Your task to perform on an android device: Clear the shopping cart on amazon.com. Image 0: 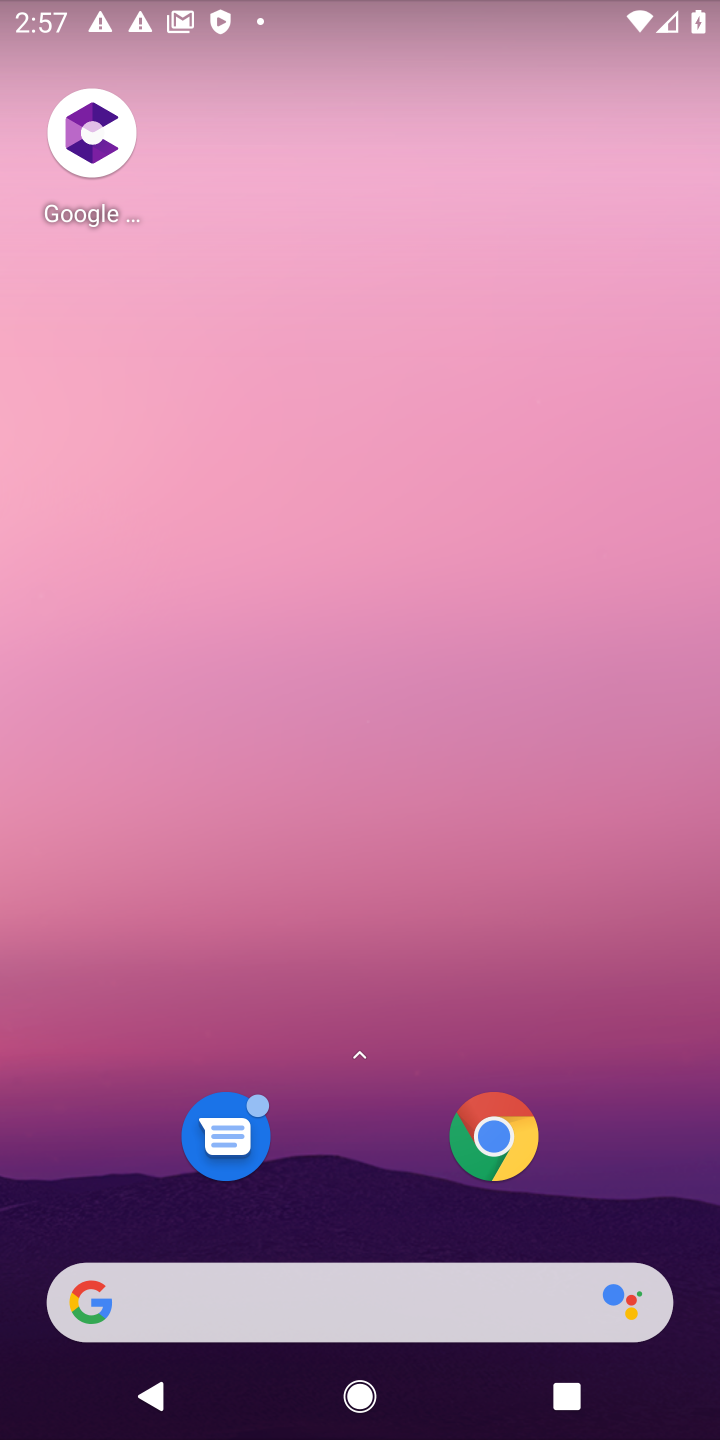
Step 0: drag from (365, 1164) to (313, 195)
Your task to perform on an android device: Clear the shopping cart on amazon.com. Image 1: 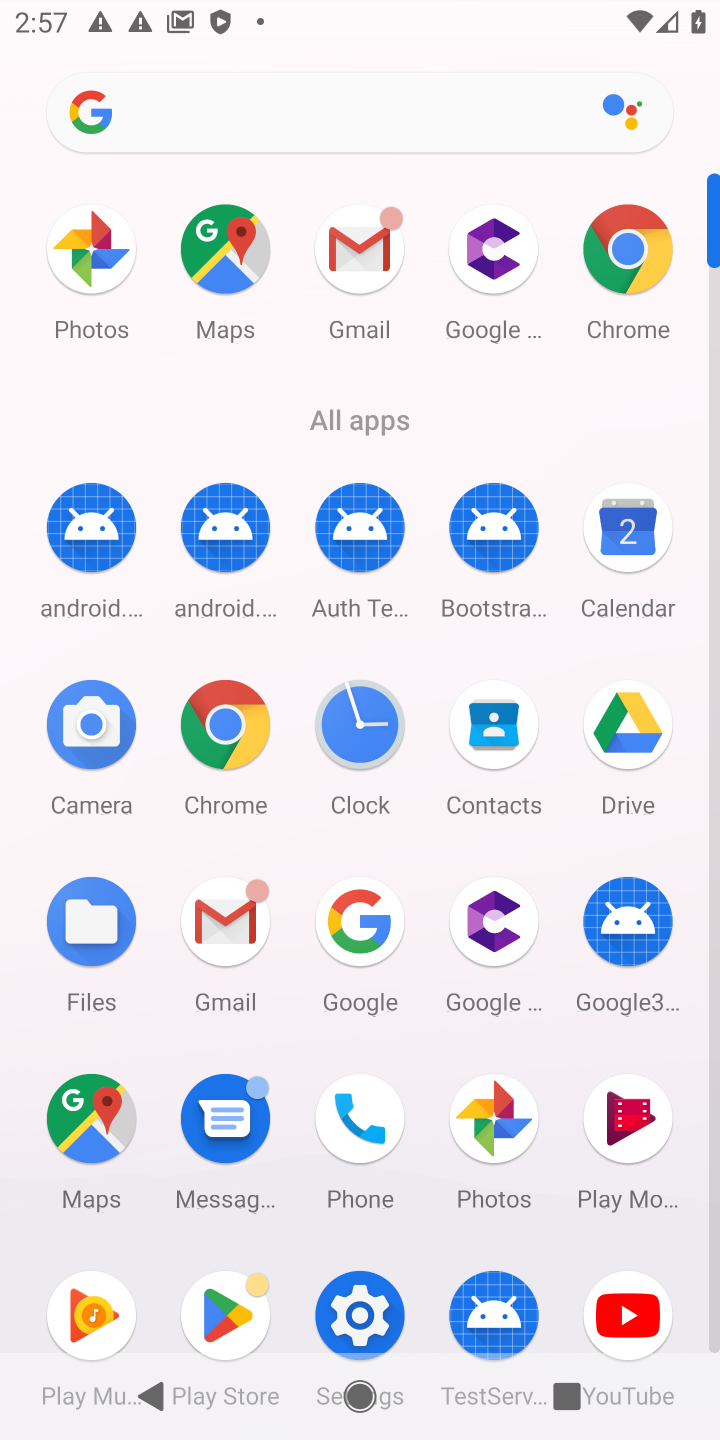
Step 1: click (225, 730)
Your task to perform on an android device: Clear the shopping cart on amazon.com. Image 2: 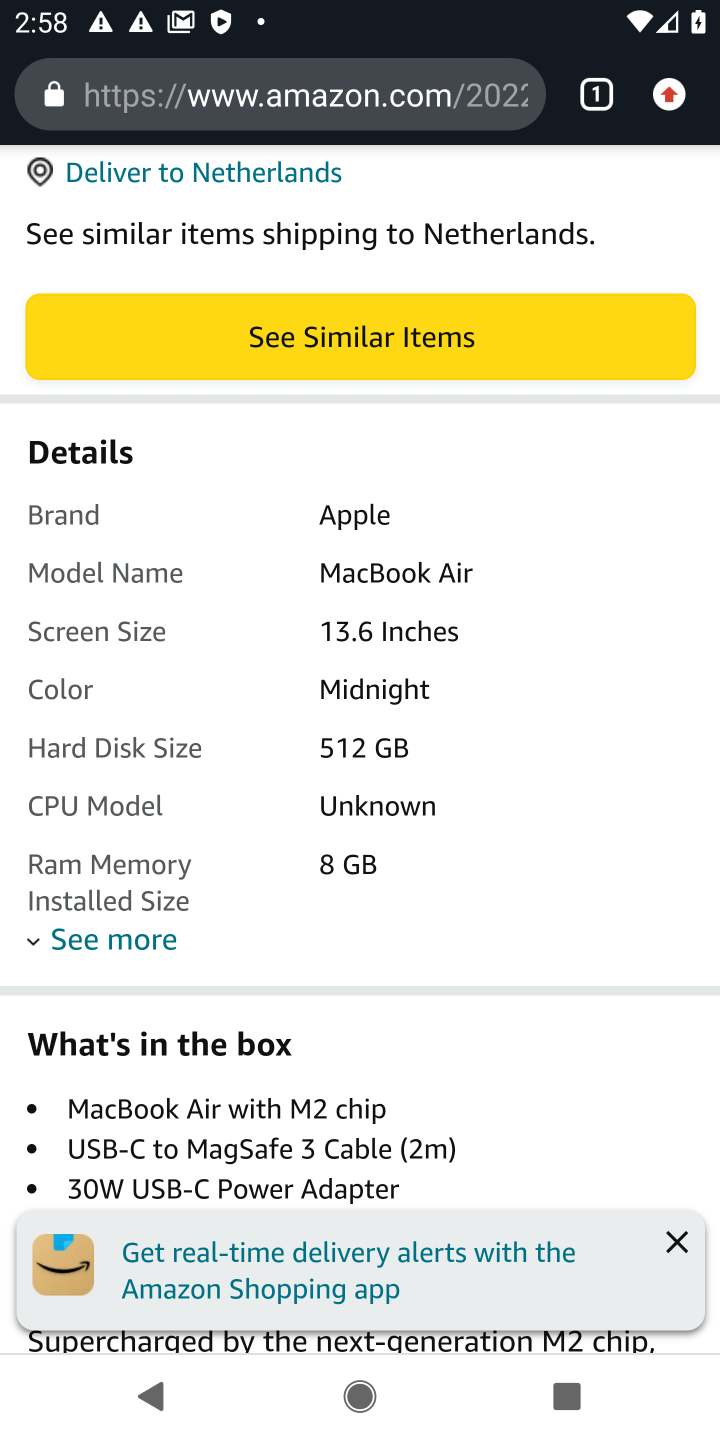
Step 2: click (358, 106)
Your task to perform on an android device: Clear the shopping cart on amazon.com. Image 3: 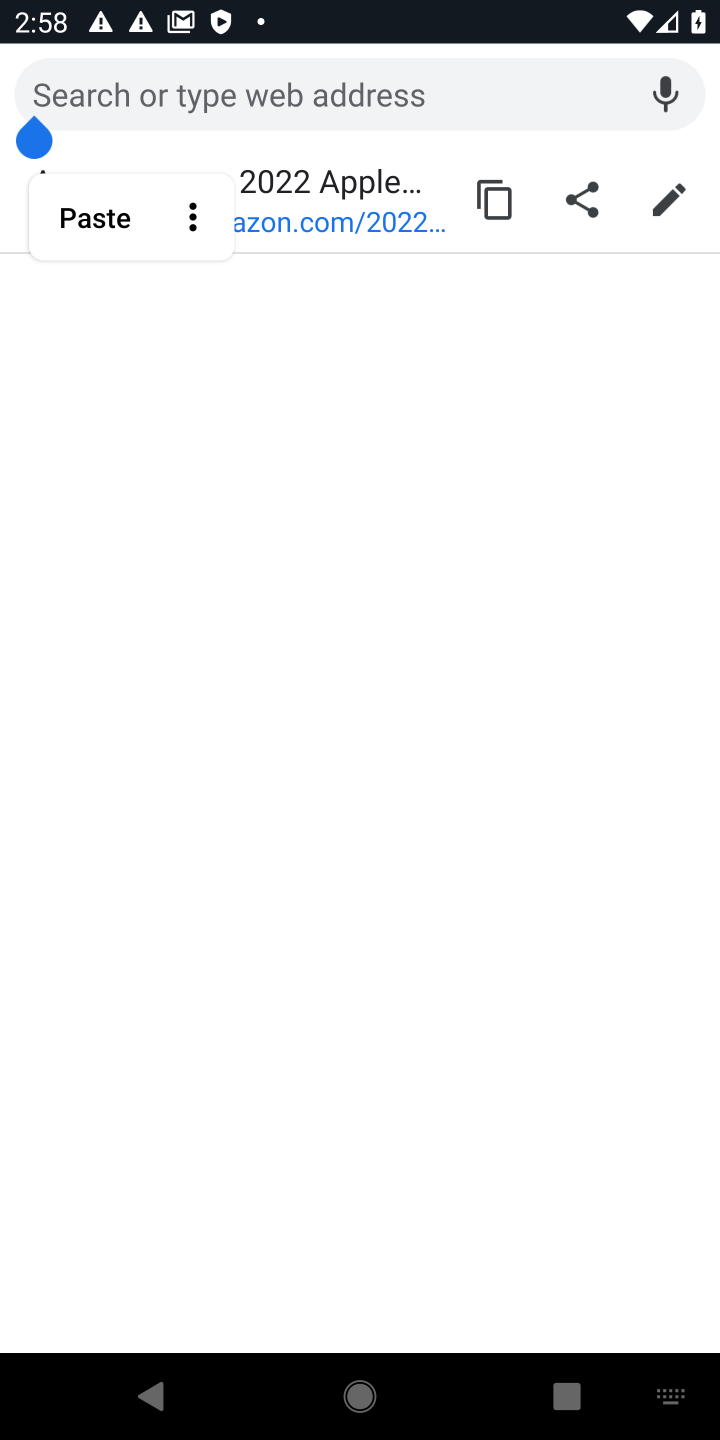
Step 3: type "amazon.com"
Your task to perform on an android device: Clear the shopping cart on amazon.com. Image 4: 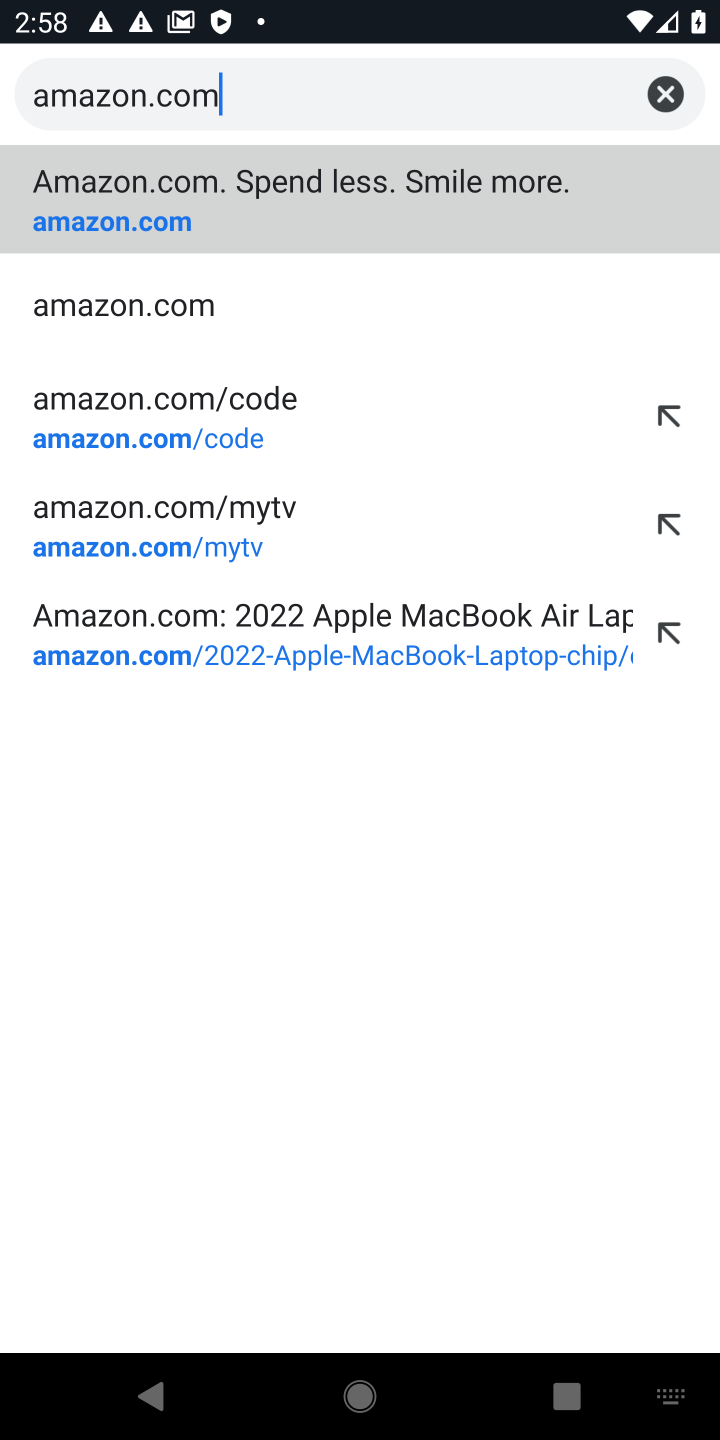
Step 4: press enter
Your task to perform on an android device: Clear the shopping cart on amazon.com. Image 5: 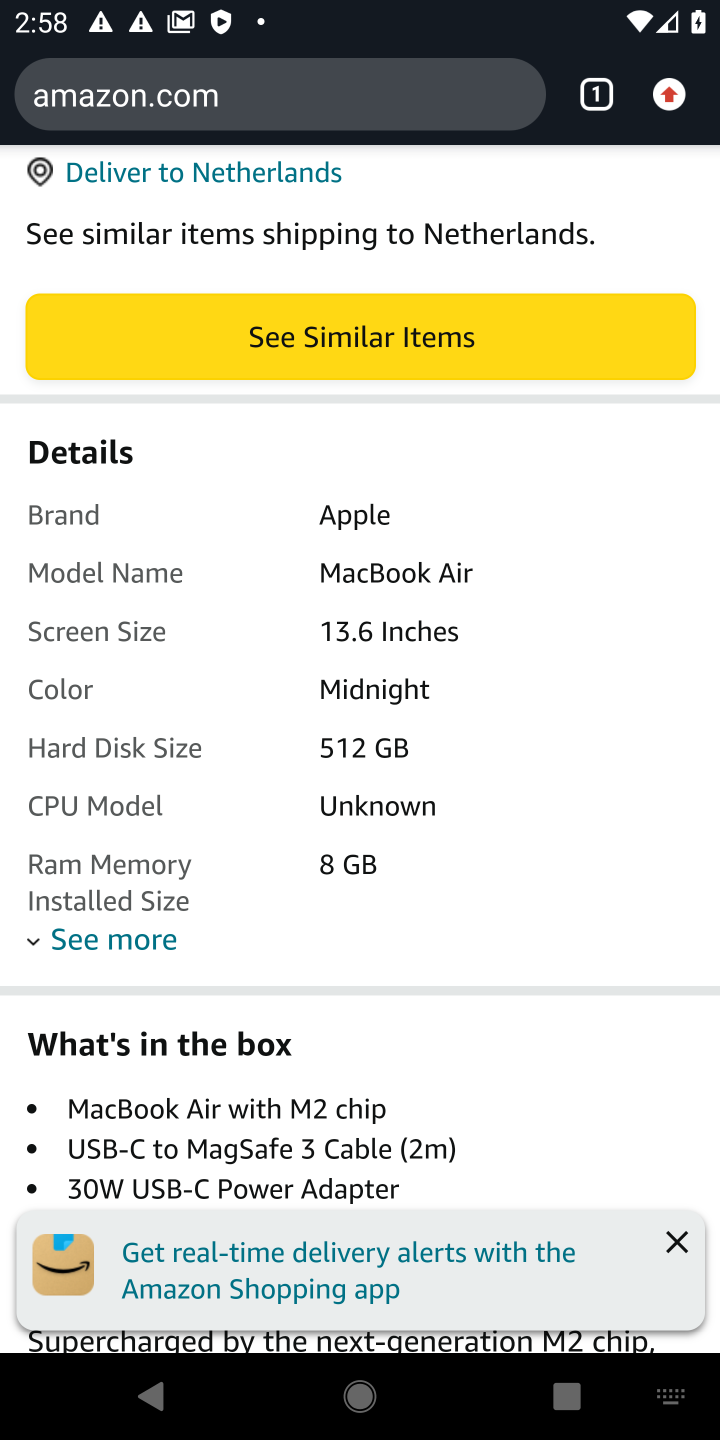
Step 5: click (267, 164)
Your task to perform on an android device: Clear the shopping cart on amazon.com. Image 6: 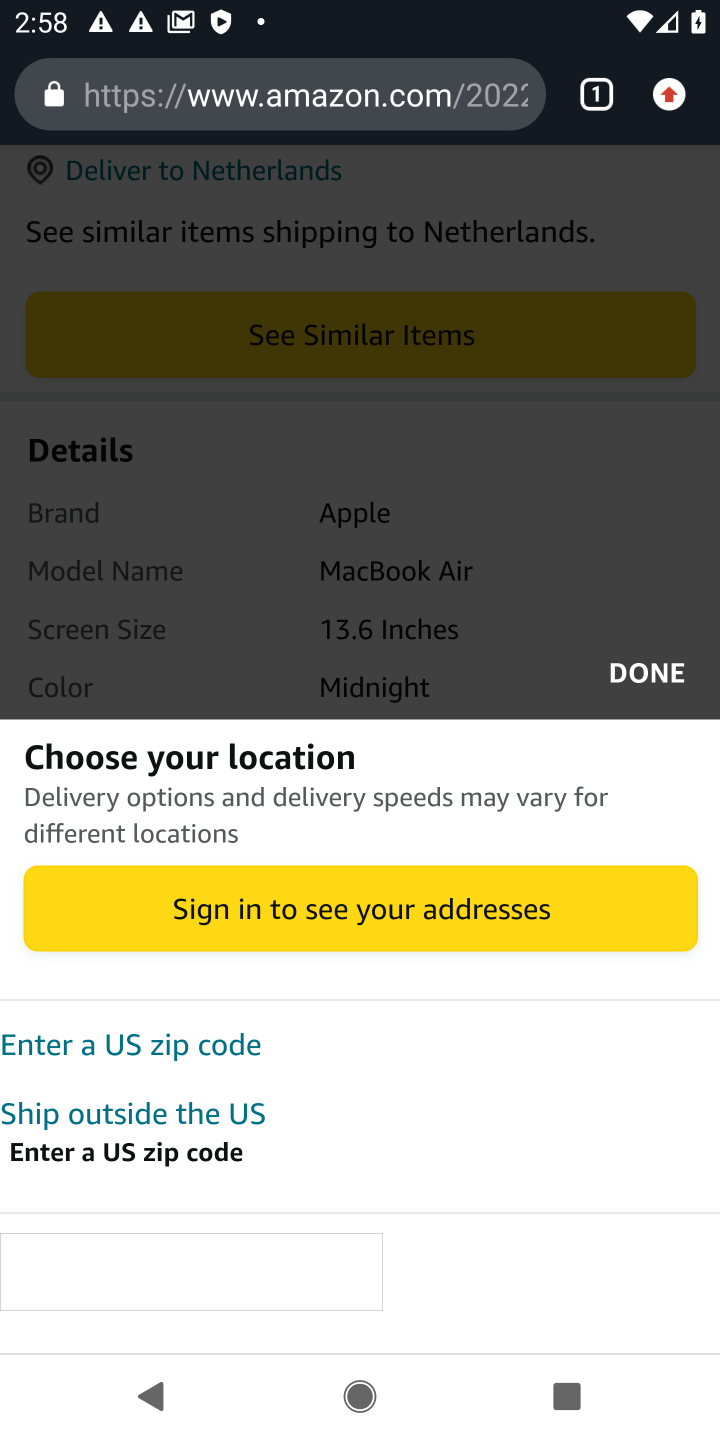
Step 6: drag from (458, 262) to (428, 754)
Your task to perform on an android device: Clear the shopping cart on amazon.com. Image 7: 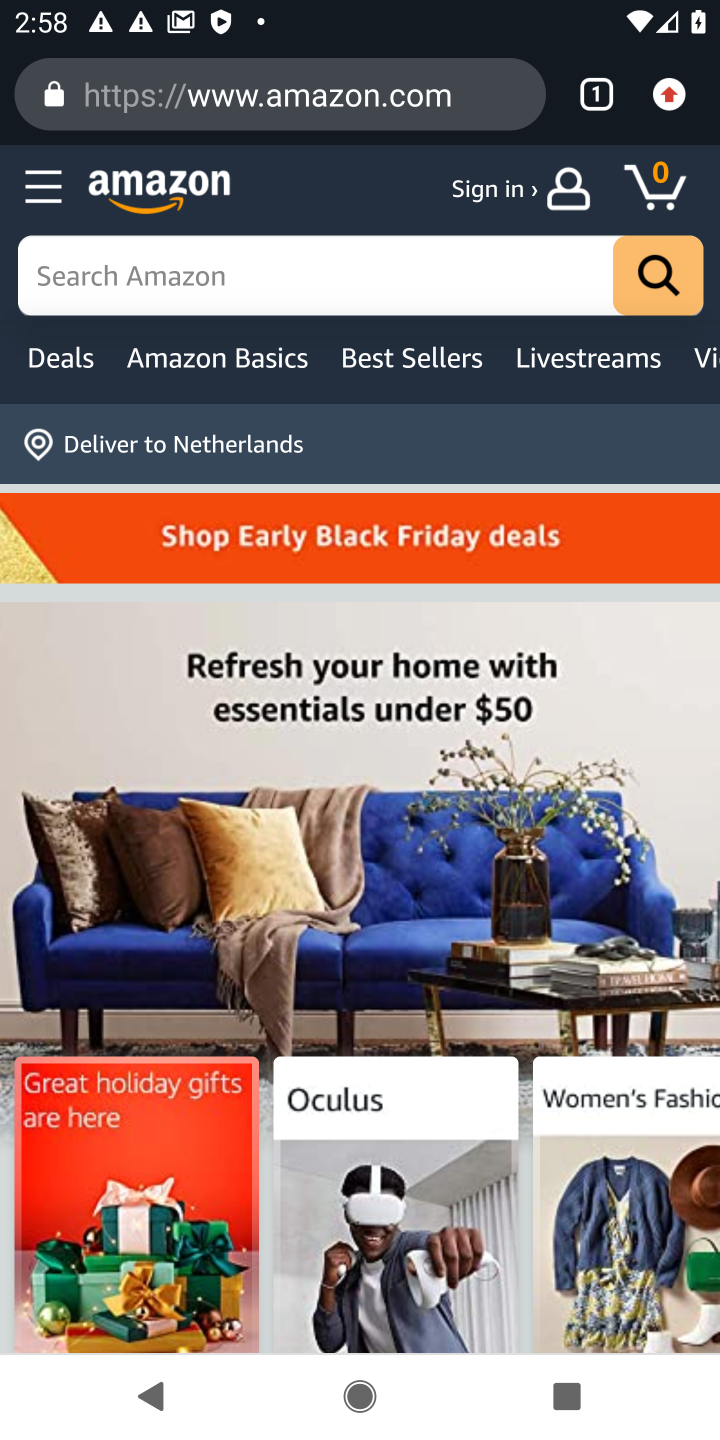
Step 7: click (652, 167)
Your task to perform on an android device: Clear the shopping cart on amazon.com. Image 8: 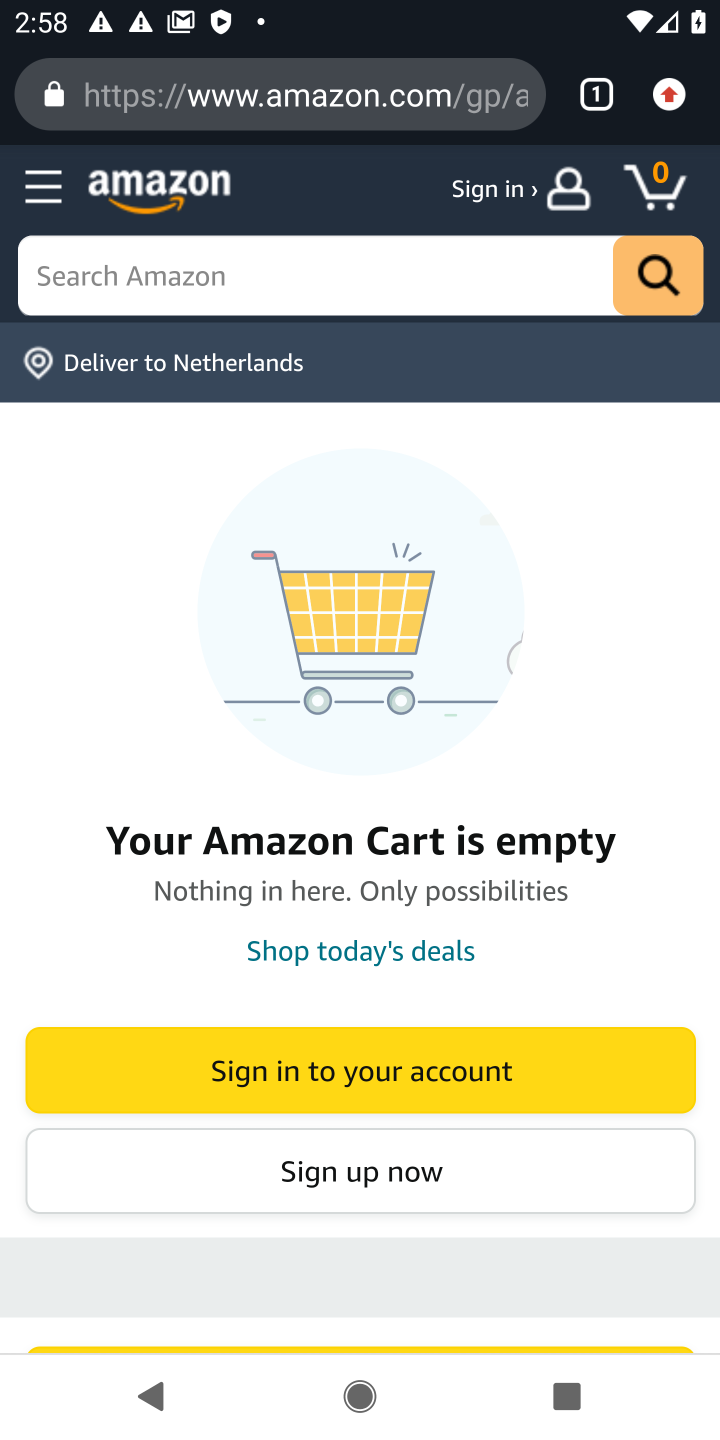
Step 8: task complete